Your task to perform on an android device: Play the last video I watched on Youtube Image 0: 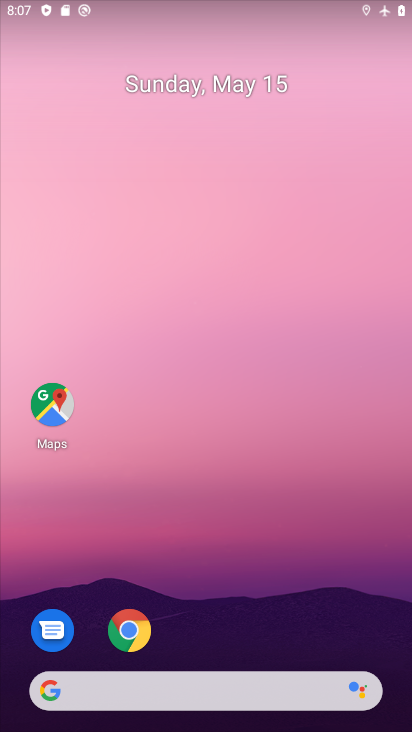
Step 0: click (275, 596)
Your task to perform on an android device: Play the last video I watched on Youtube Image 1: 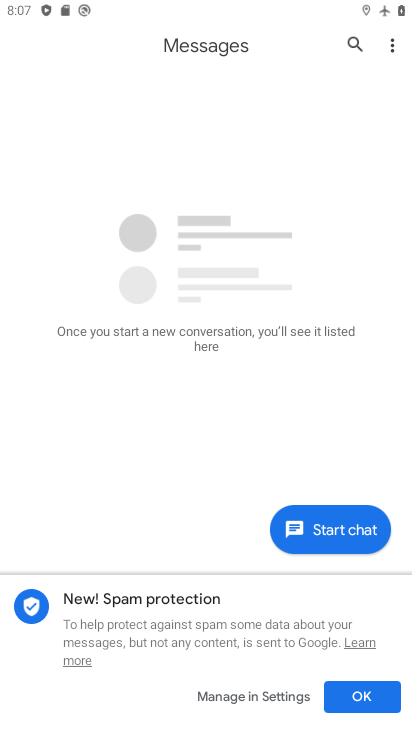
Step 1: press home button
Your task to perform on an android device: Play the last video I watched on Youtube Image 2: 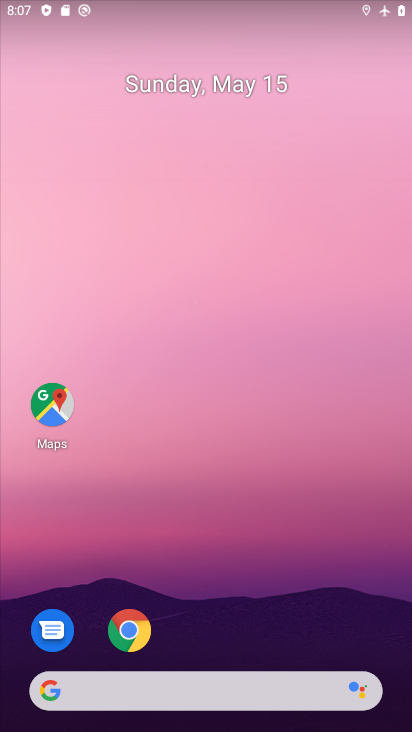
Step 2: drag from (235, 639) to (274, 95)
Your task to perform on an android device: Play the last video I watched on Youtube Image 3: 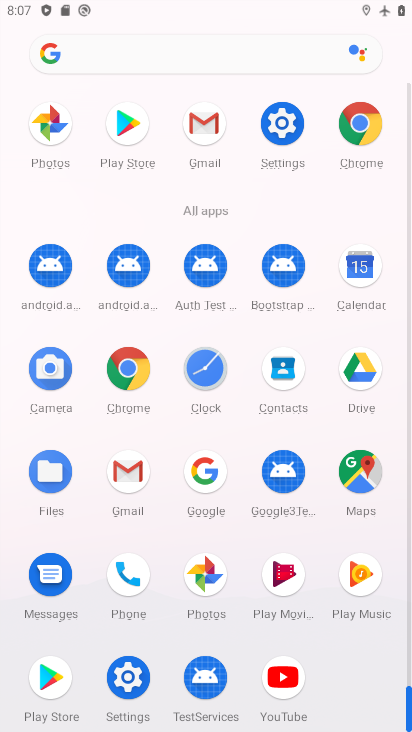
Step 3: click (281, 678)
Your task to perform on an android device: Play the last video I watched on Youtube Image 4: 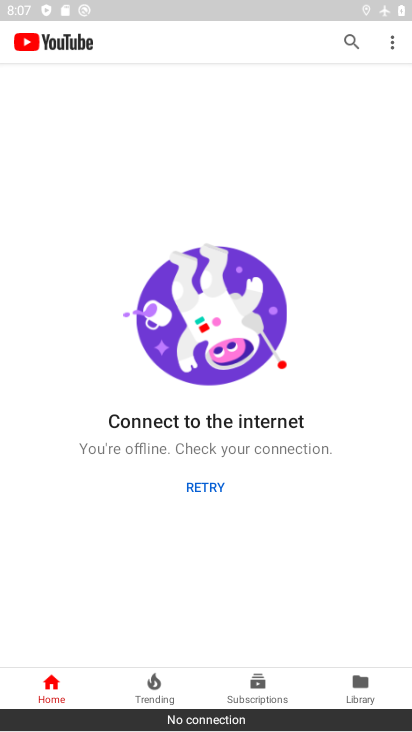
Step 4: click (358, 694)
Your task to perform on an android device: Play the last video I watched on Youtube Image 5: 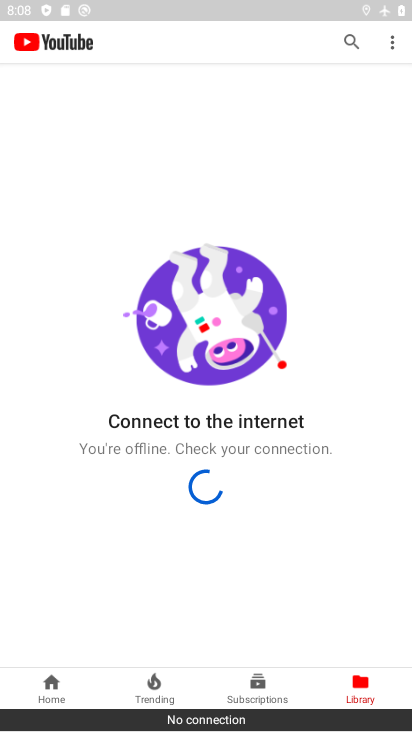
Step 5: drag from (325, 20) to (339, 658)
Your task to perform on an android device: Play the last video I watched on Youtube Image 6: 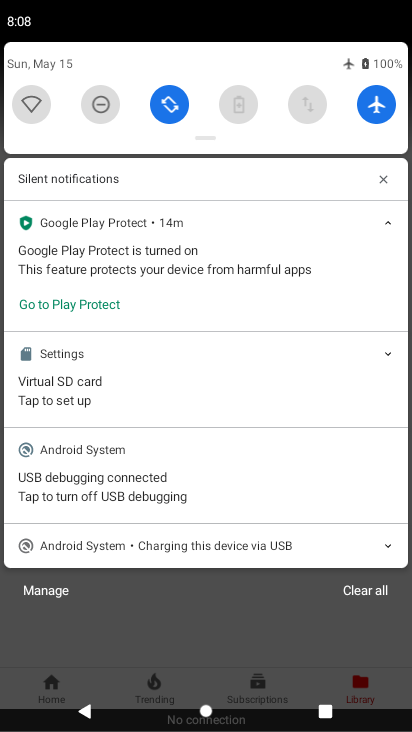
Step 6: click (374, 110)
Your task to perform on an android device: Play the last video I watched on Youtube Image 7: 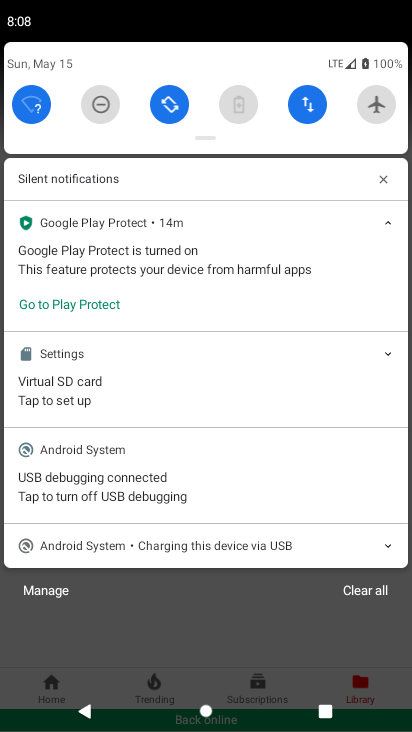
Step 7: drag from (208, 608) to (225, 208)
Your task to perform on an android device: Play the last video I watched on Youtube Image 8: 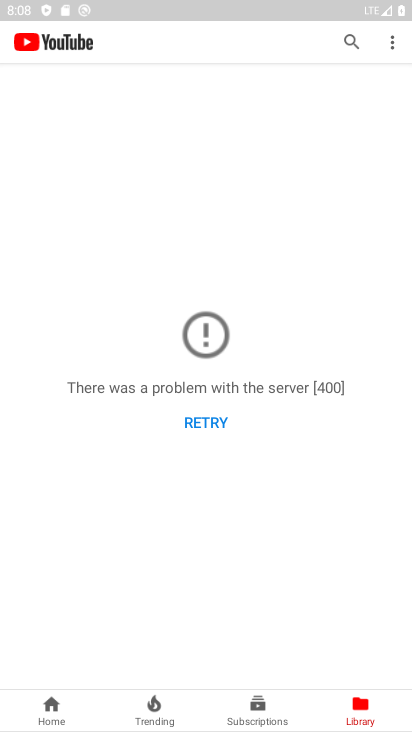
Step 8: click (207, 413)
Your task to perform on an android device: Play the last video I watched on Youtube Image 9: 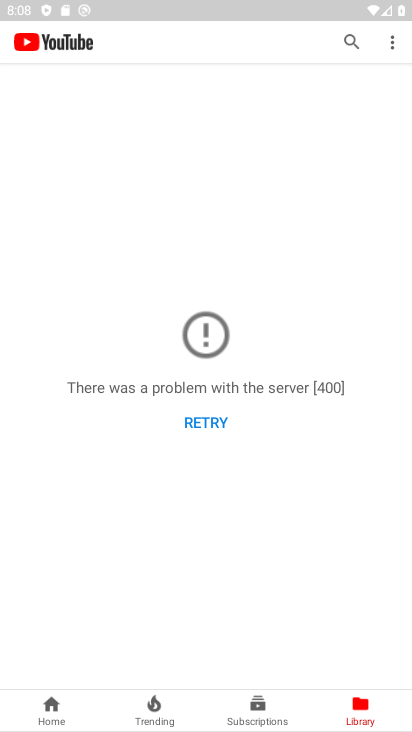
Step 9: click (208, 418)
Your task to perform on an android device: Play the last video I watched on Youtube Image 10: 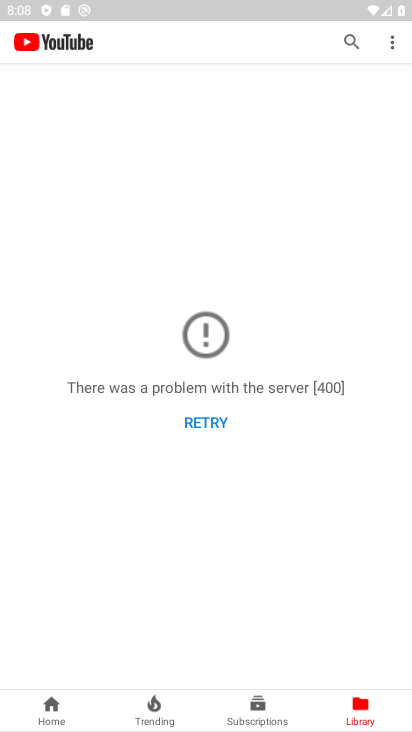
Step 10: drag from (246, 283) to (240, 496)
Your task to perform on an android device: Play the last video I watched on Youtube Image 11: 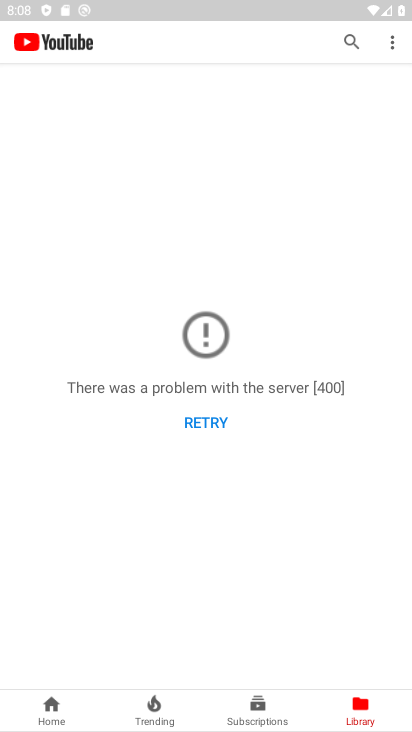
Step 11: click (203, 427)
Your task to perform on an android device: Play the last video I watched on Youtube Image 12: 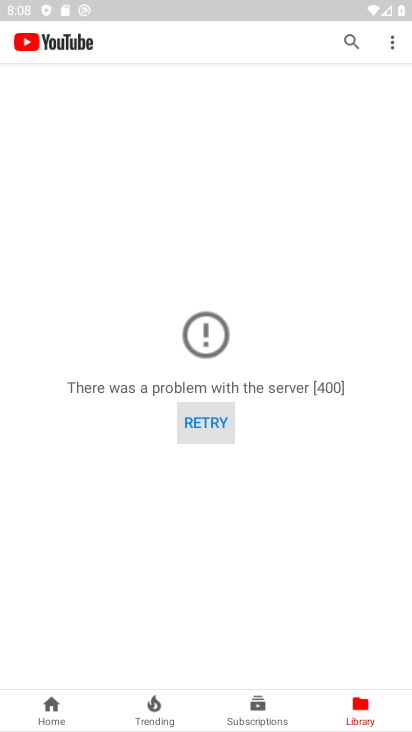
Step 12: click (203, 427)
Your task to perform on an android device: Play the last video I watched on Youtube Image 13: 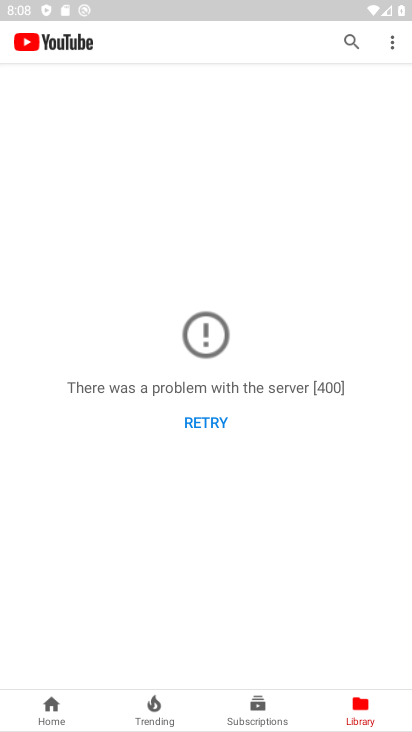
Step 13: task complete